Your task to perform on an android device: Open the calendar and show me this week's events Image 0: 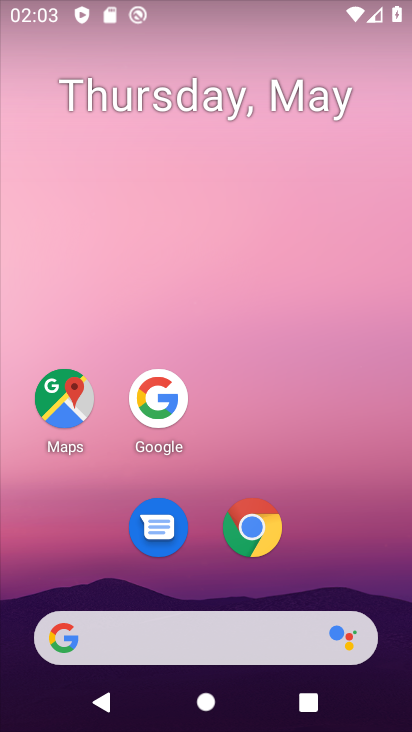
Step 0: drag from (226, 579) to (229, 183)
Your task to perform on an android device: Open the calendar and show me this week's events Image 1: 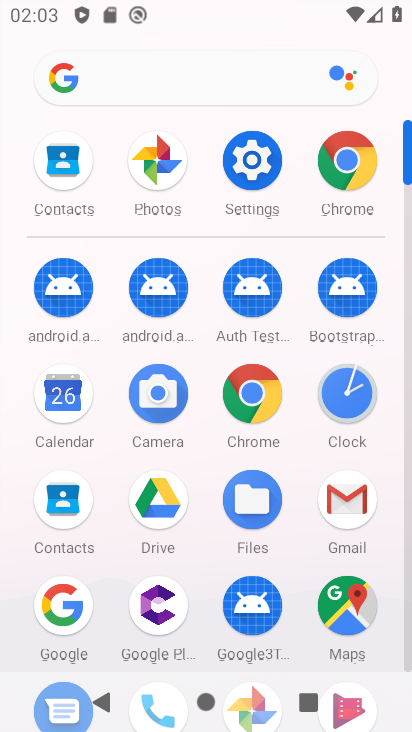
Step 1: click (54, 397)
Your task to perform on an android device: Open the calendar and show me this week's events Image 2: 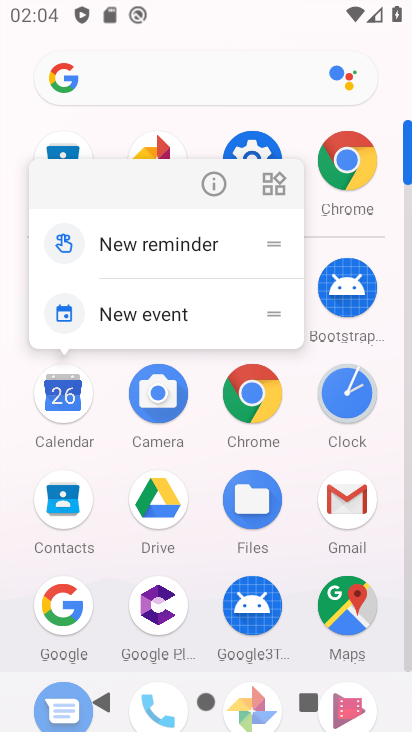
Step 2: click (214, 187)
Your task to perform on an android device: Open the calendar and show me this week's events Image 3: 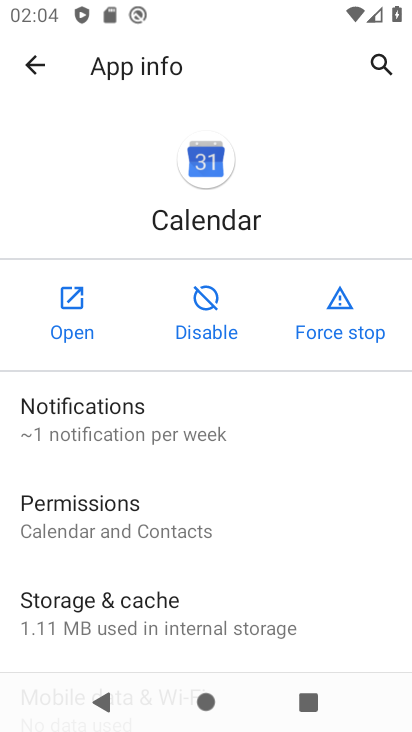
Step 3: click (91, 295)
Your task to perform on an android device: Open the calendar and show me this week's events Image 4: 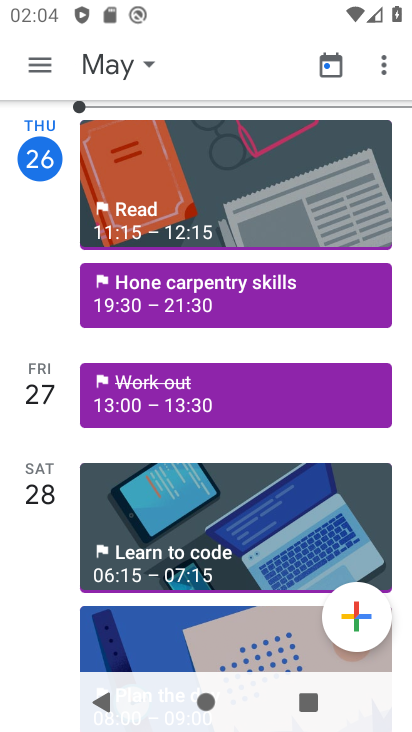
Step 4: click (113, 43)
Your task to perform on an android device: Open the calendar and show me this week's events Image 5: 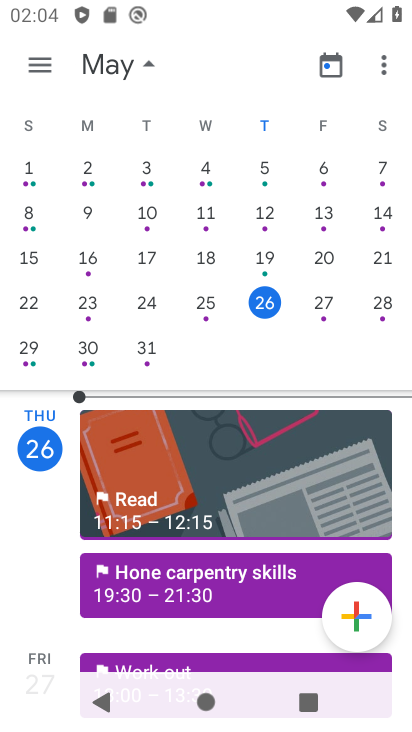
Step 5: drag from (392, 223) to (0, 271)
Your task to perform on an android device: Open the calendar and show me this week's events Image 6: 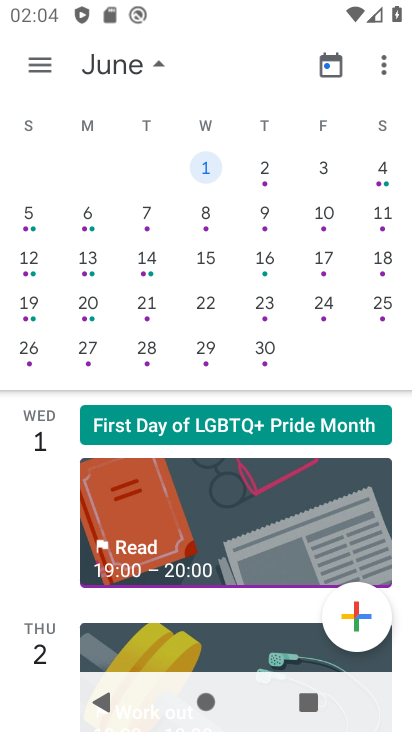
Step 6: drag from (32, 269) to (407, 213)
Your task to perform on an android device: Open the calendar and show me this week's events Image 7: 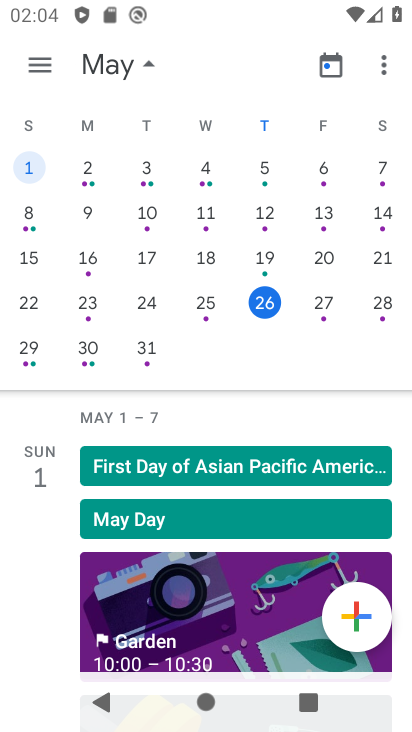
Step 7: click (333, 303)
Your task to perform on an android device: Open the calendar and show me this week's events Image 8: 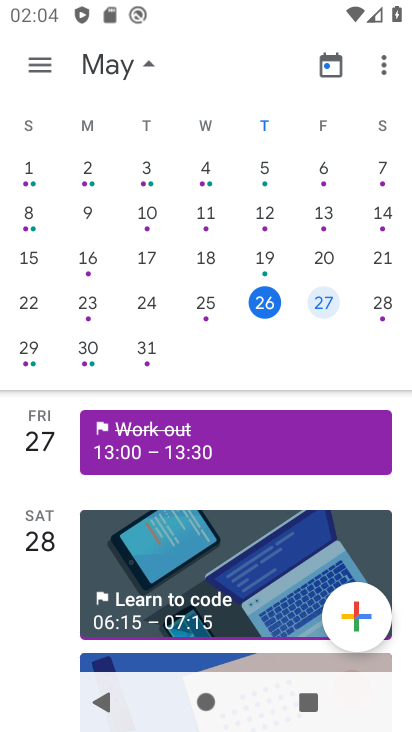
Step 8: task complete